Your task to perform on an android device: Add "jbl charge 4" to the cart on target.com Image 0: 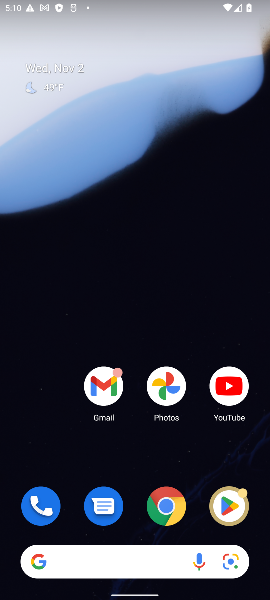
Step 0: click (168, 522)
Your task to perform on an android device: Add "jbl charge 4" to the cart on target.com Image 1: 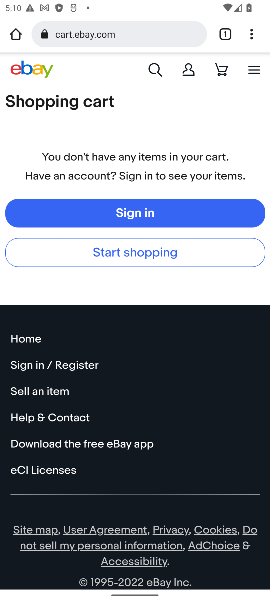
Step 1: click (146, 38)
Your task to perform on an android device: Add "jbl charge 4" to the cart on target.com Image 2: 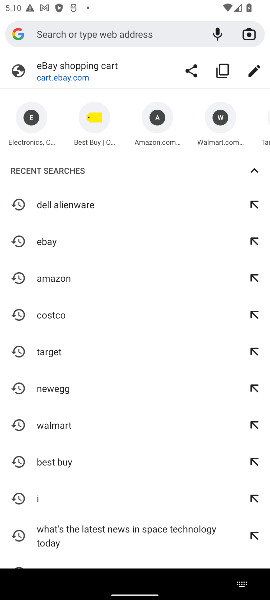
Step 2: type "target.com"
Your task to perform on an android device: Add "jbl charge 4" to the cart on target.com Image 3: 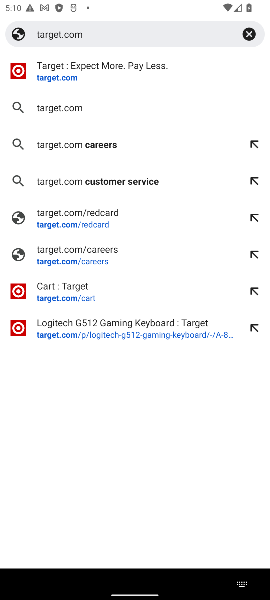
Step 3: click (88, 83)
Your task to perform on an android device: Add "jbl charge 4" to the cart on target.com Image 4: 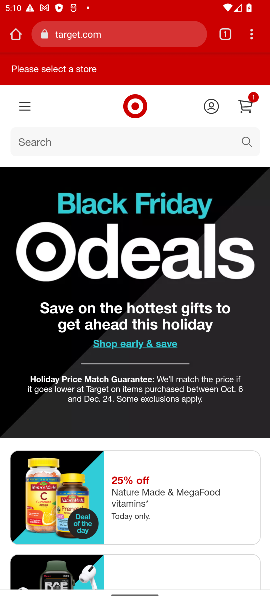
Step 4: click (105, 152)
Your task to perform on an android device: Add "jbl charge 4" to the cart on target.com Image 5: 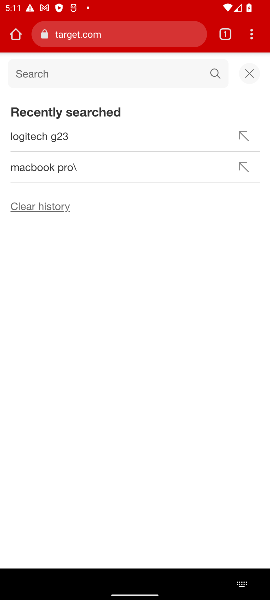
Step 5: type "jbl chrge 4"
Your task to perform on an android device: Add "jbl charge 4" to the cart on target.com Image 6: 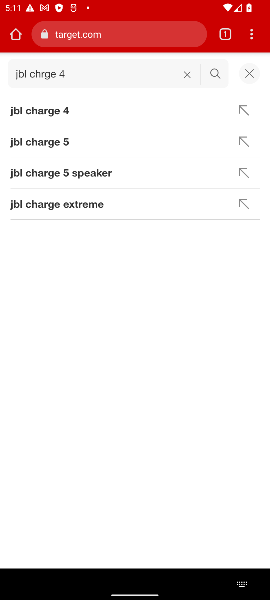
Step 6: click (83, 110)
Your task to perform on an android device: Add "jbl charge 4" to the cart on target.com Image 7: 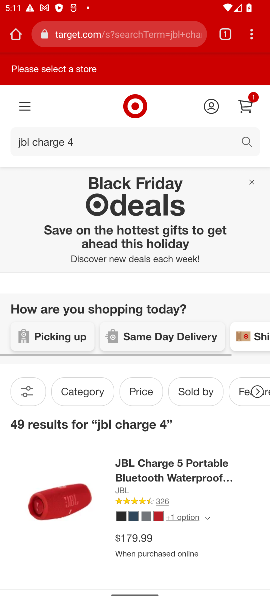
Step 7: task complete